Your task to perform on an android device: Open Wikipedia Image 0: 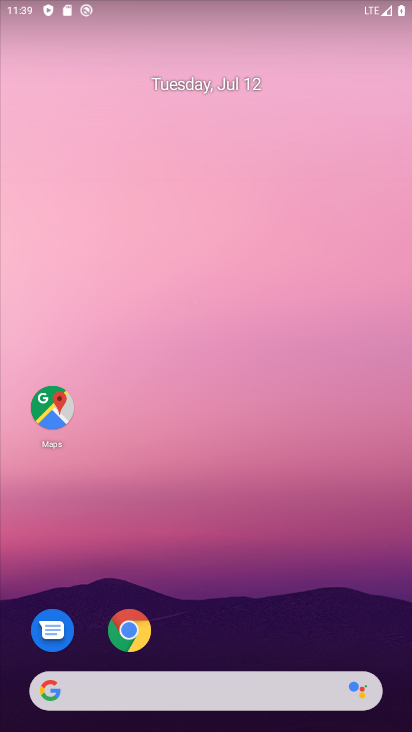
Step 0: drag from (382, 651) to (261, 78)
Your task to perform on an android device: Open Wikipedia Image 1: 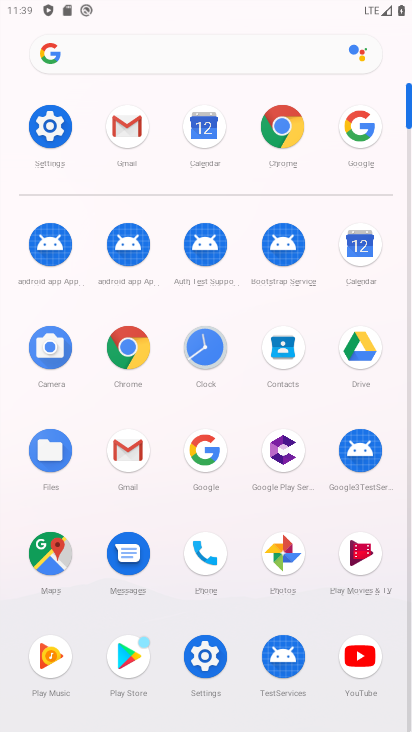
Step 1: click (207, 461)
Your task to perform on an android device: Open Wikipedia Image 2: 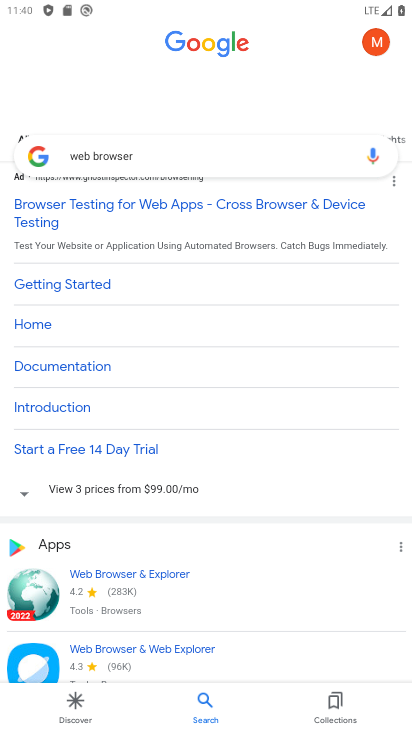
Step 2: press back button
Your task to perform on an android device: Open Wikipedia Image 3: 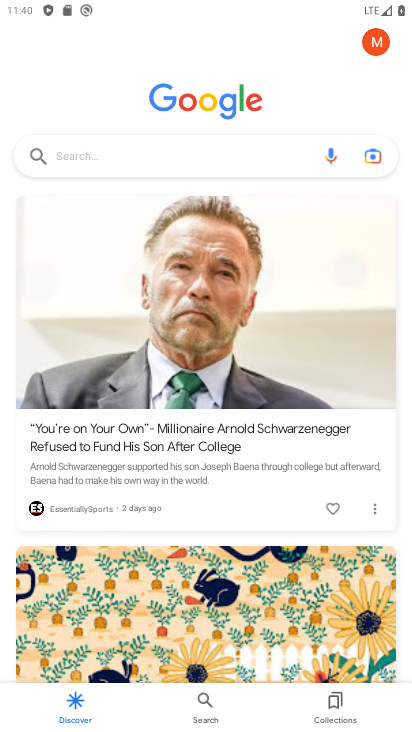
Step 3: click (152, 151)
Your task to perform on an android device: Open Wikipedia Image 4: 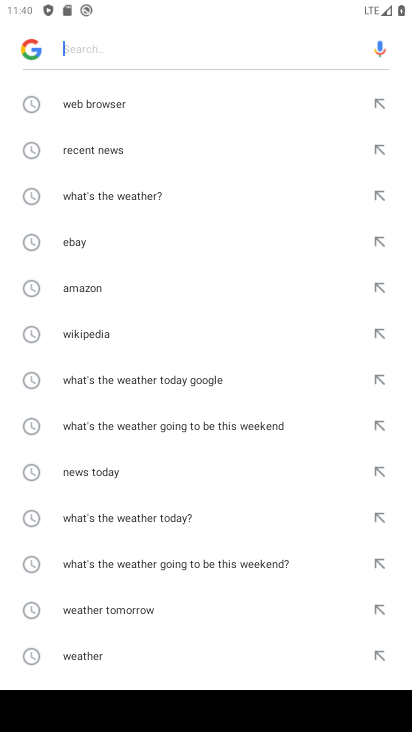
Step 4: click (99, 326)
Your task to perform on an android device: Open Wikipedia Image 5: 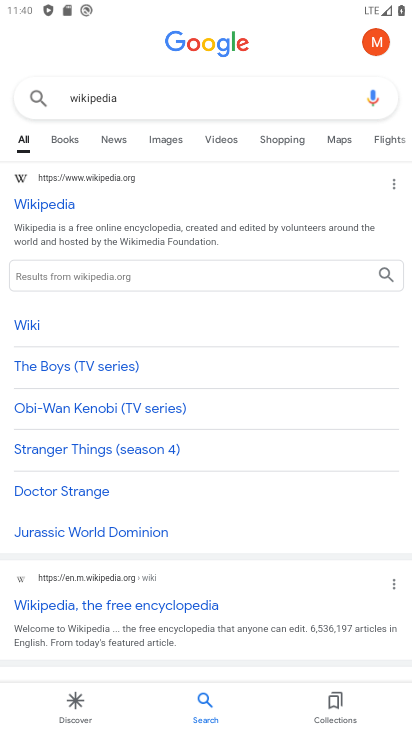
Step 5: task complete